Your task to perform on an android device: Search for "apple airpods" on target, select the first entry, add it to the cart, then select checkout. Image 0: 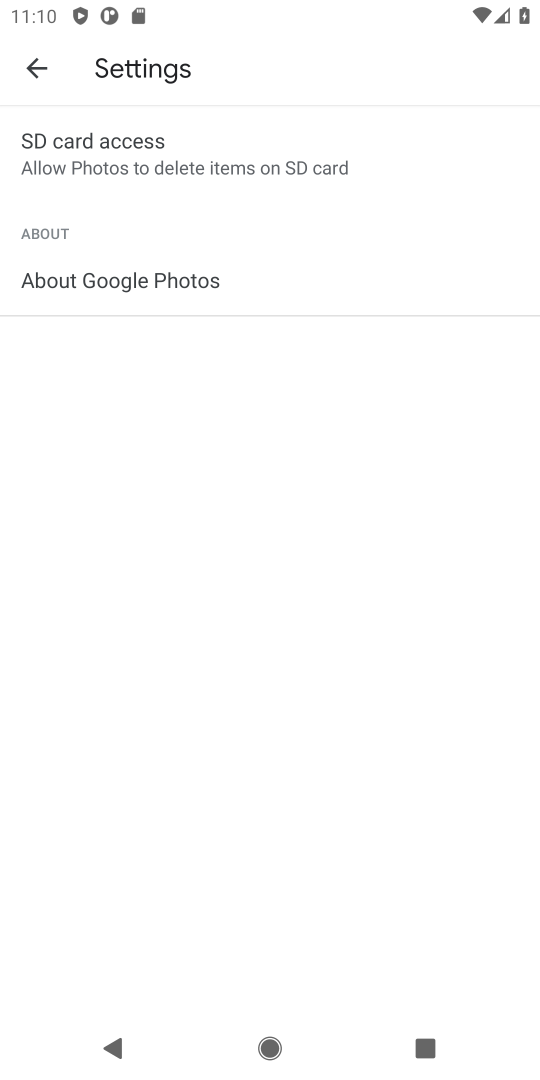
Step 0: press home button
Your task to perform on an android device: Search for "apple airpods" on target, select the first entry, add it to the cart, then select checkout. Image 1: 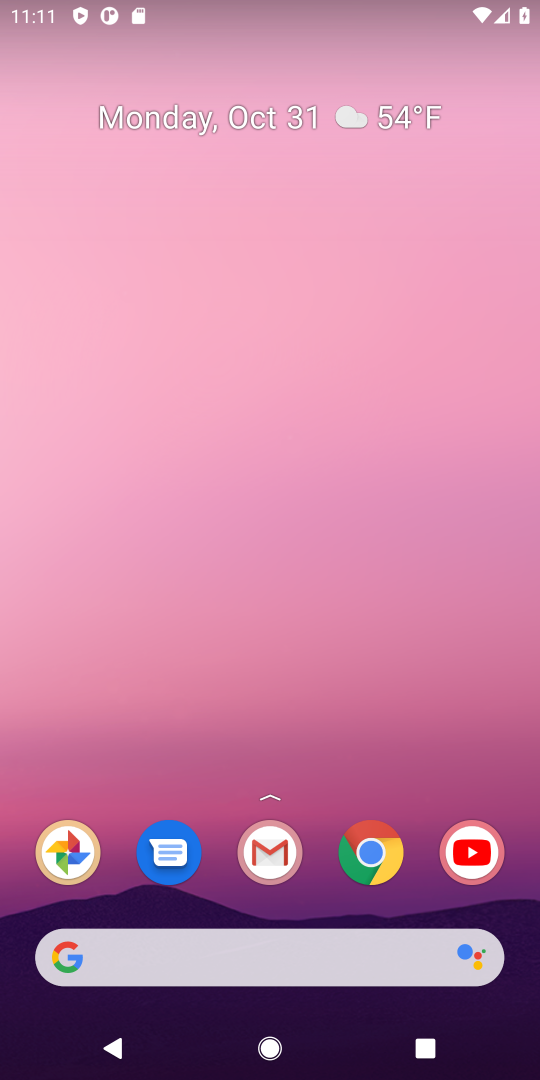
Step 1: click (375, 846)
Your task to perform on an android device: Search for "apple airpods" on target, select the first entry, add it to the cart, then select checkout. Image 2: 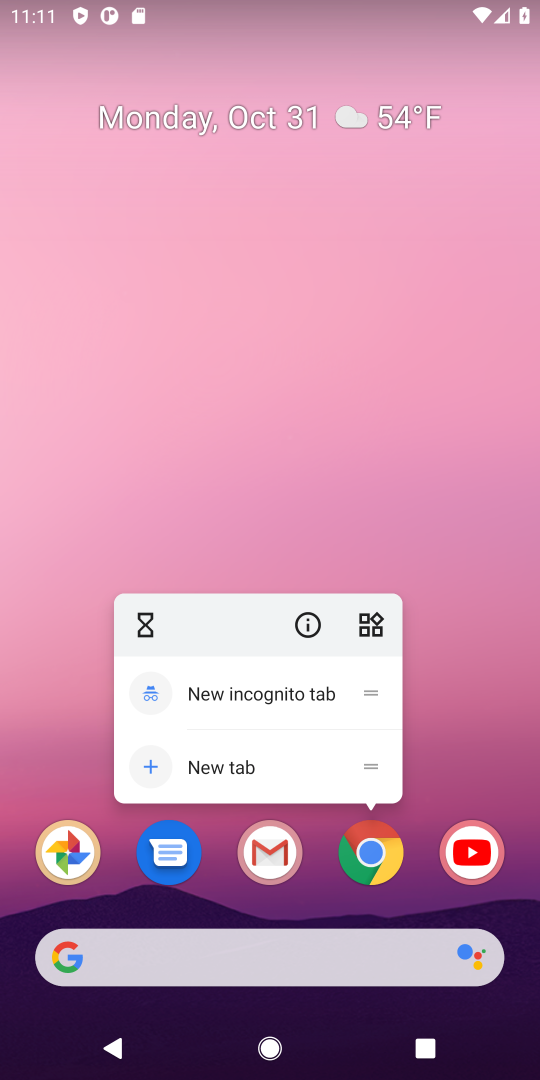
Step 2: click (373, 872)
Your task to perform on an android device: Search for "apple airpods" on target, select the first entry, add it to the cart, then select checkout. Image 3: 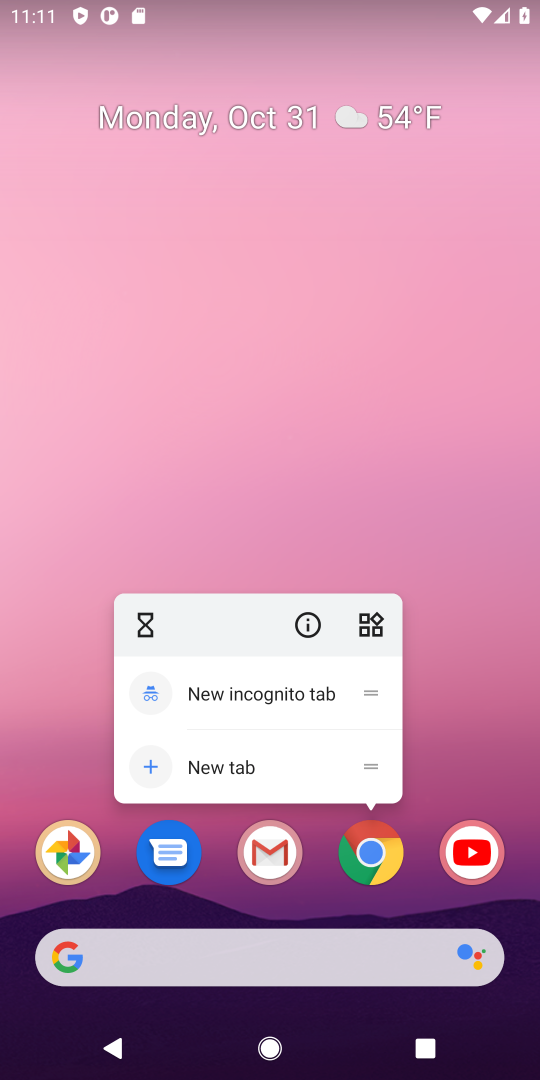
Step 3: click (383, 865)
Your task to perform on an android device: Search for "apple airpods" on target, select the first entry, add it to the cart, then select checkout. Image 4: 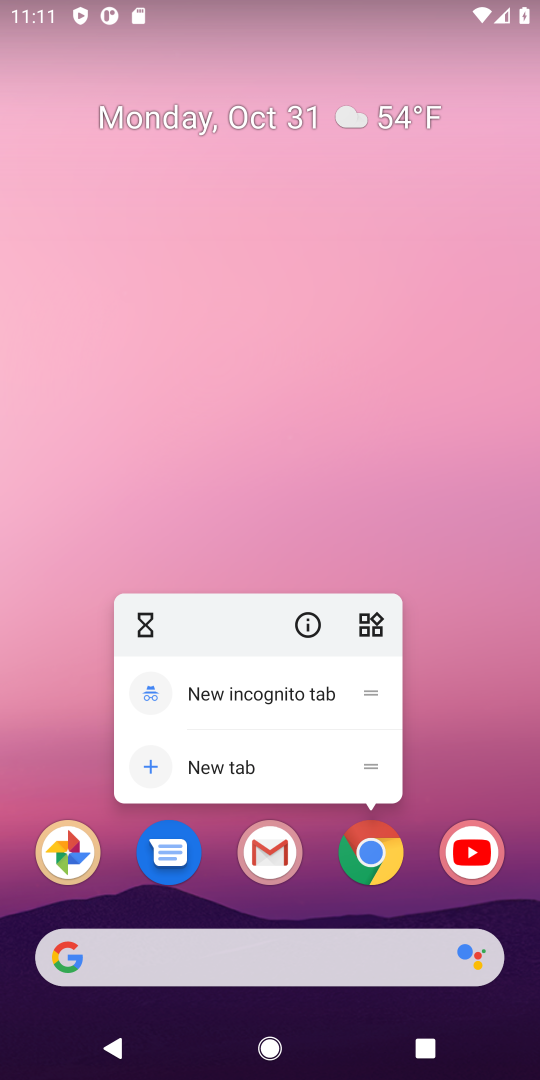
Step 4: click (385, 863)
Your task to perform on an android device: Search for "apple airpods" on target, select the first entry, add it to the cart, then select checkout. Image 5: 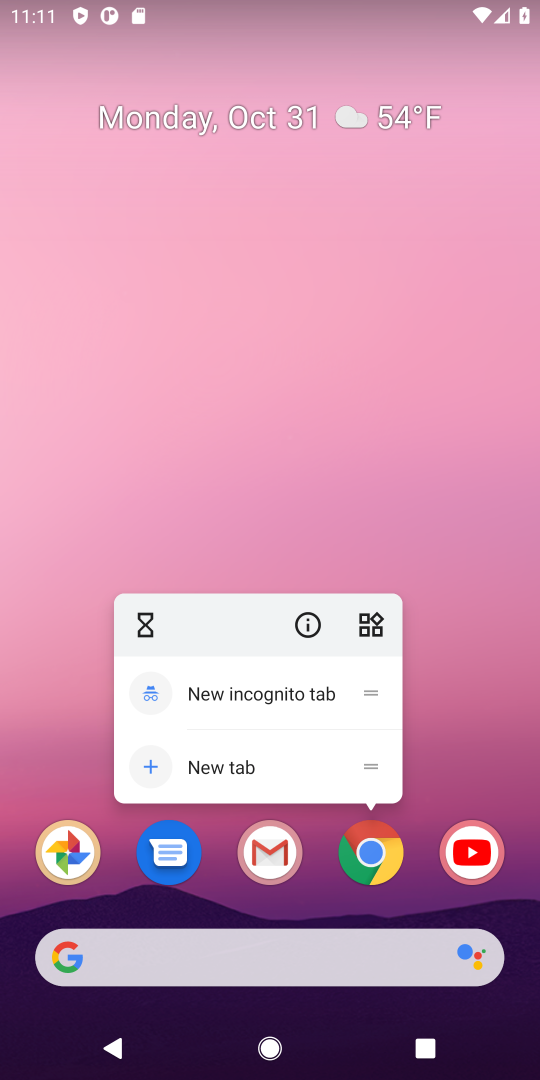
Step 5: click (372, 855)
Your task to perform on an android device: Search for "apple airpods" on target, select the first entry, add it to the cart, then select checkout. Image 6: 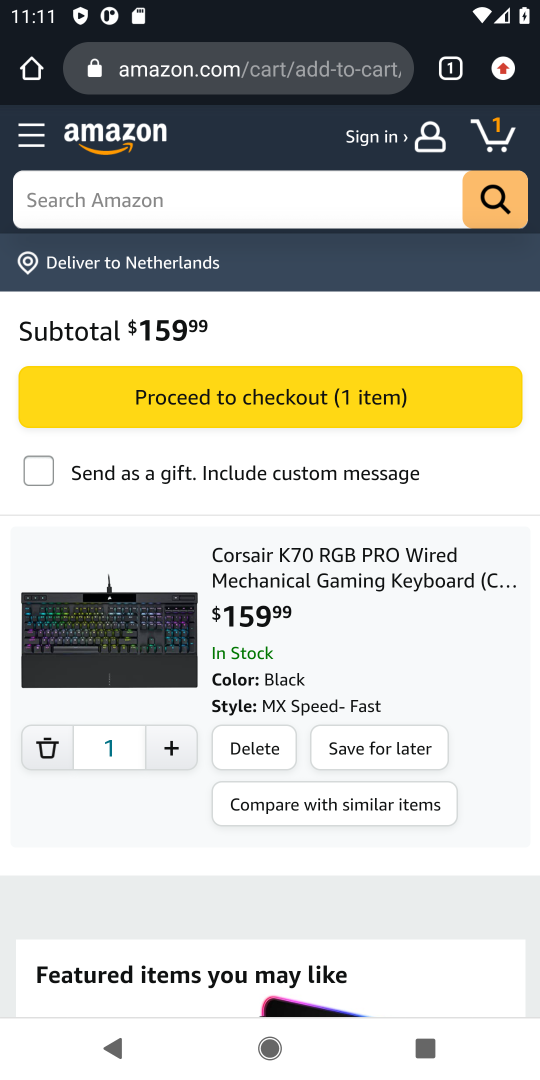
Step 6: click (278, 68)
Your task to perform on an android device: Search for "apple airpods" on target, select the first entry, add it to the cart, then select checkout. Image 7: 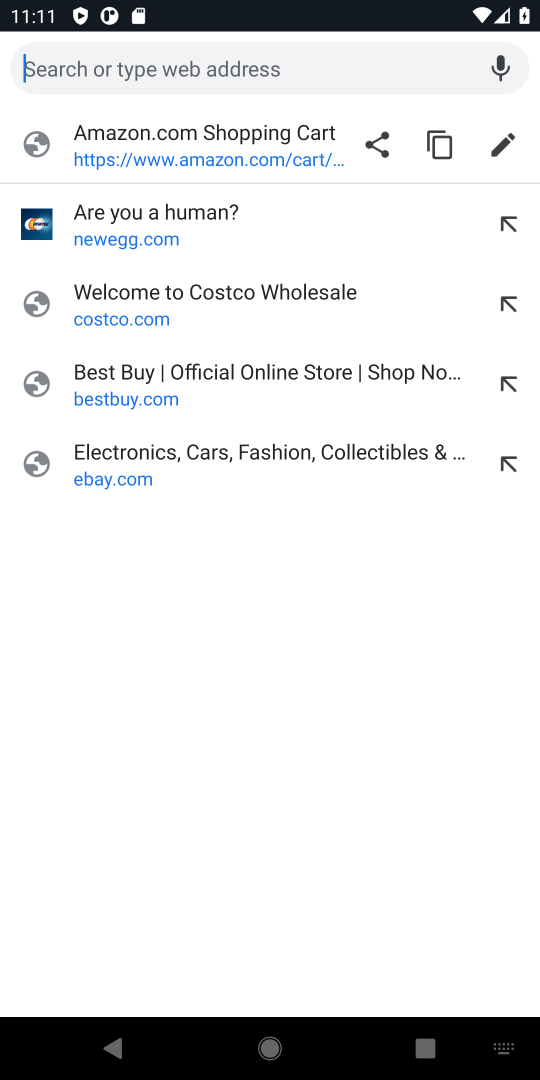
Step 7: type "target"
Your task to perform on an android device: Search for "apple airpods" on target, select the first entry, add it to the cart, then select checkout. Image 8: 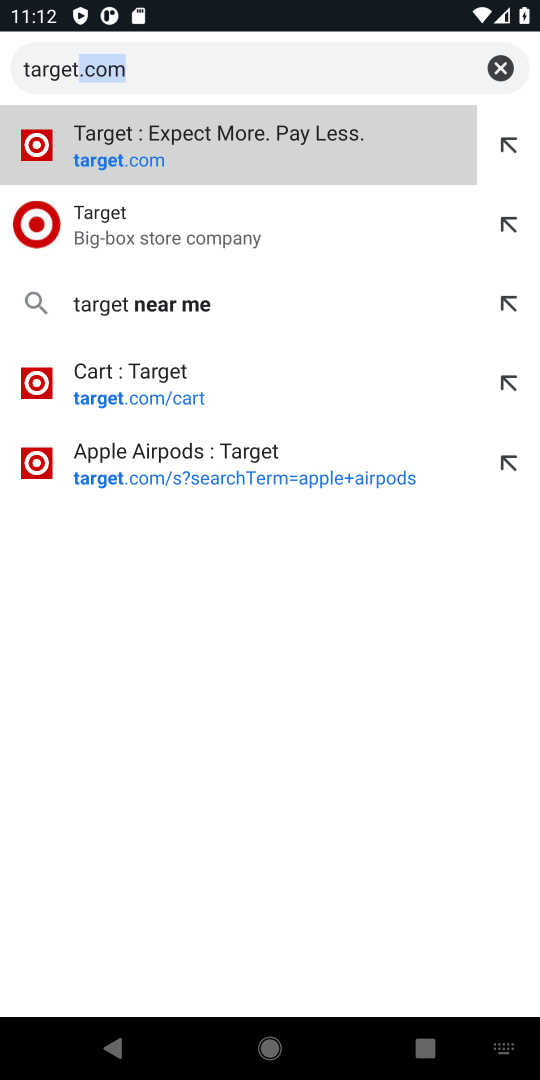
Step 8: press enter
Your task to perform on an android device: Search for "apple airpods" on target, select the first entry, add it to the cart, then select checkout. Image 9: 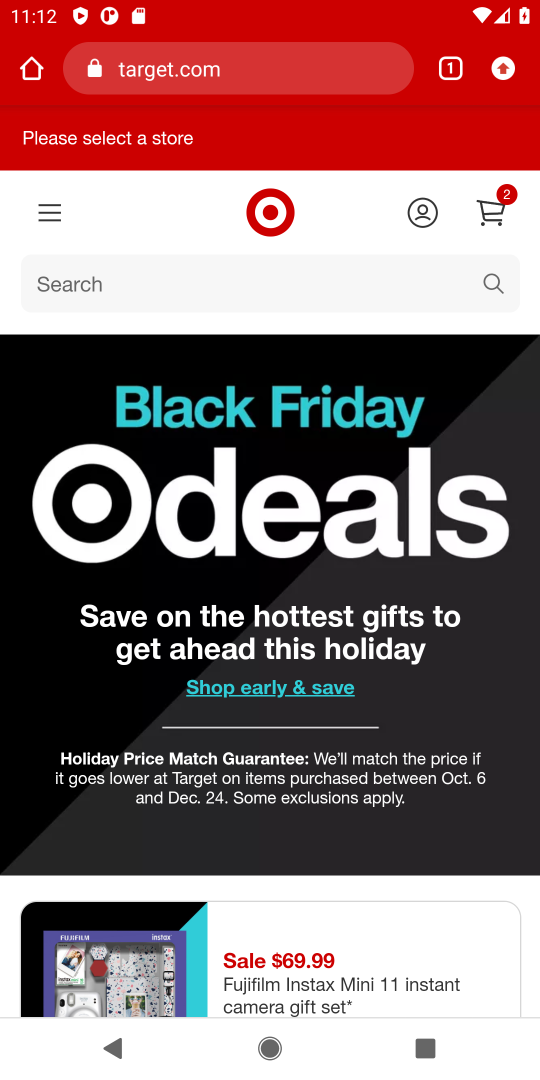
Step 9: click (284, 265)
Your task to perform on an android device: Search for "apple airpods" on target, select the first entry, add it to the cart, then select checkout. Image 10: 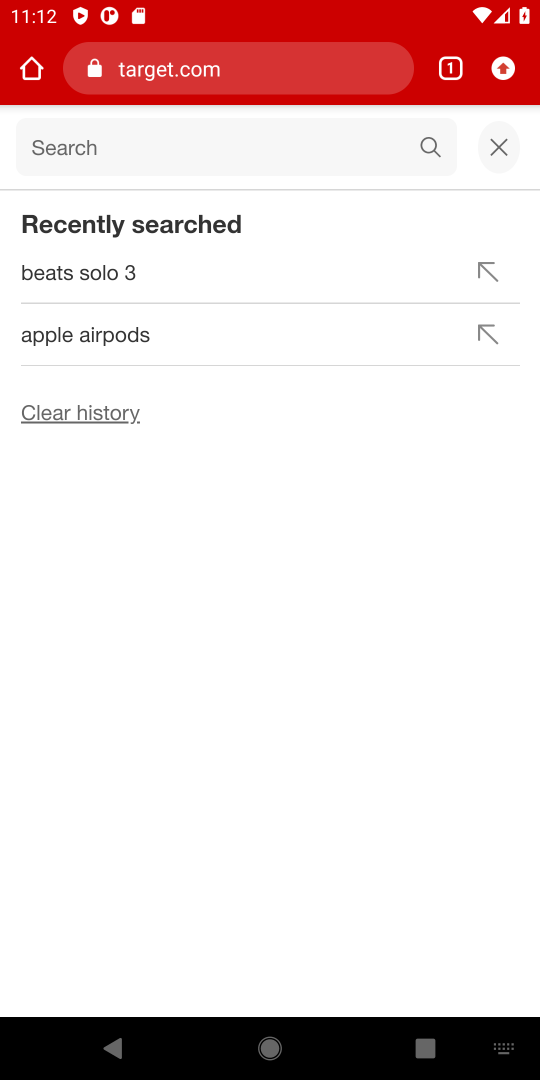
Step 10: type "apple airpods"
Your task to perform on an android device: Search for "apple airpods" on target, select the first entry, add it to the cart, then select checkout. Image 11: 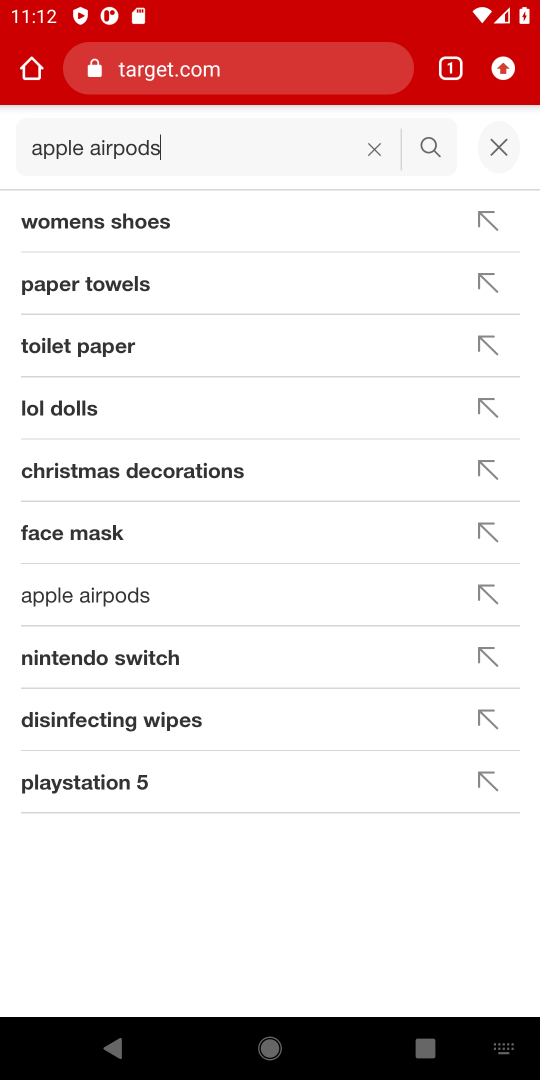
Step 11: type ""
Your task to perform on an android device: Search for "apple airpods" on target, select the first entry, add it to the cart, then select checkout. Image 12: 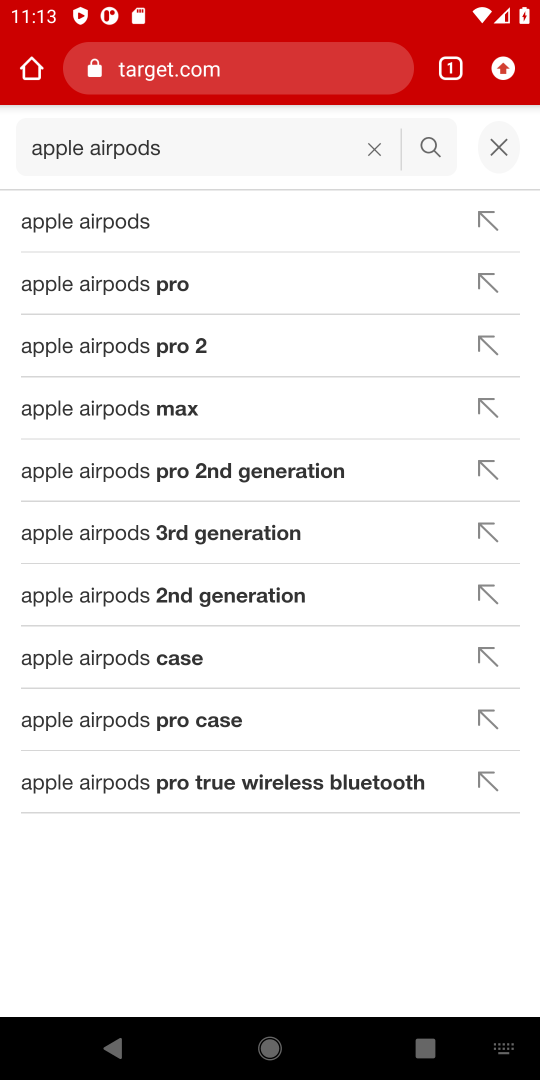
Step 12: click (427, 144)
Your task to perform on an android device: Search for "apple airpods" on target, select the first entry, add it to the cart, then select checkout. Image 13: 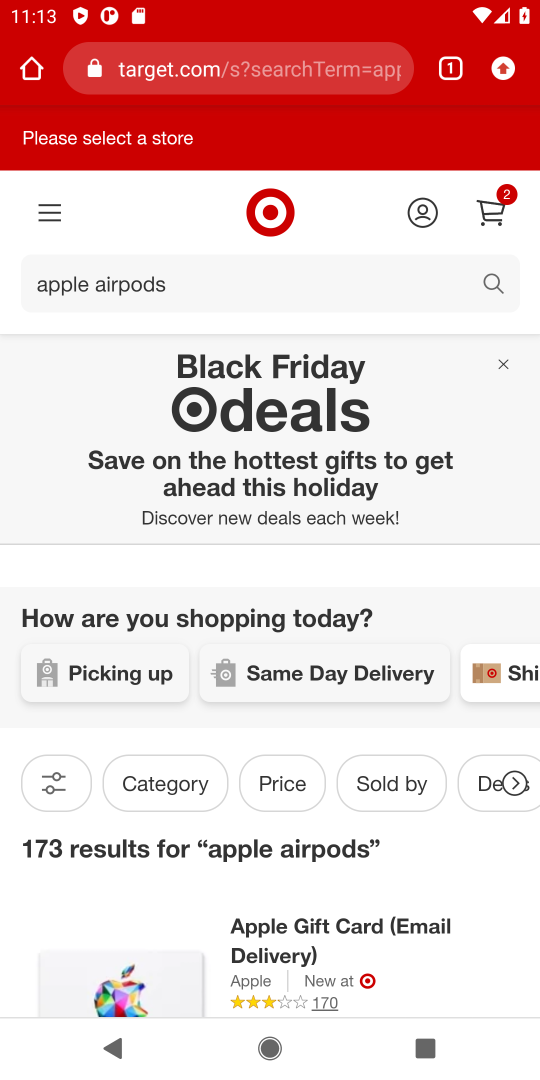
Step 13: drag from (250, 892) to (207, 335)
Your task to perform on an android device: Search for "apple airpods" on target, select the first entry, add it to the cart, then select checkout. Image 14: 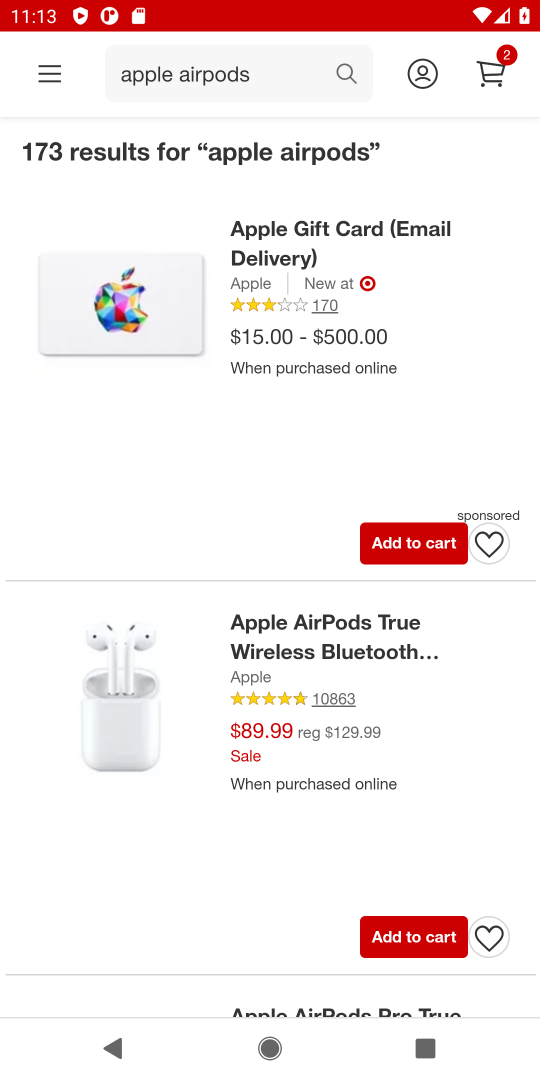
Step 14: click (292, 628)
Your task to perform on an android device: Search for "apple airpods" on target, select the first entry, add it to the cart, then select checkout. Image 15: 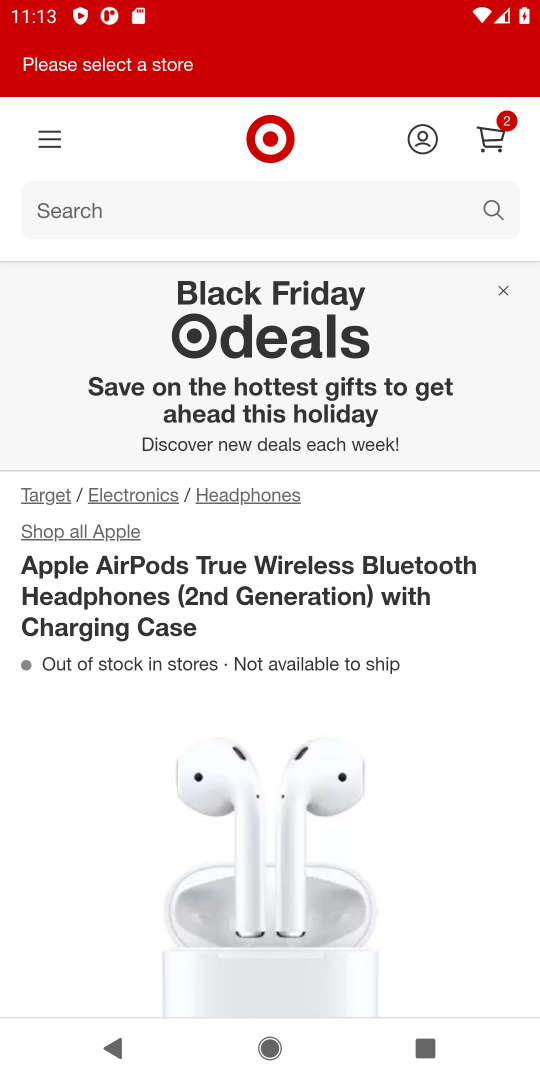
Step 15: drag from (330, 725) to (278, 244)
Your task to perform on an android device: Search for "apple airpods" on target, select the first entry, add it to the cart, then select checkout. Image 16: 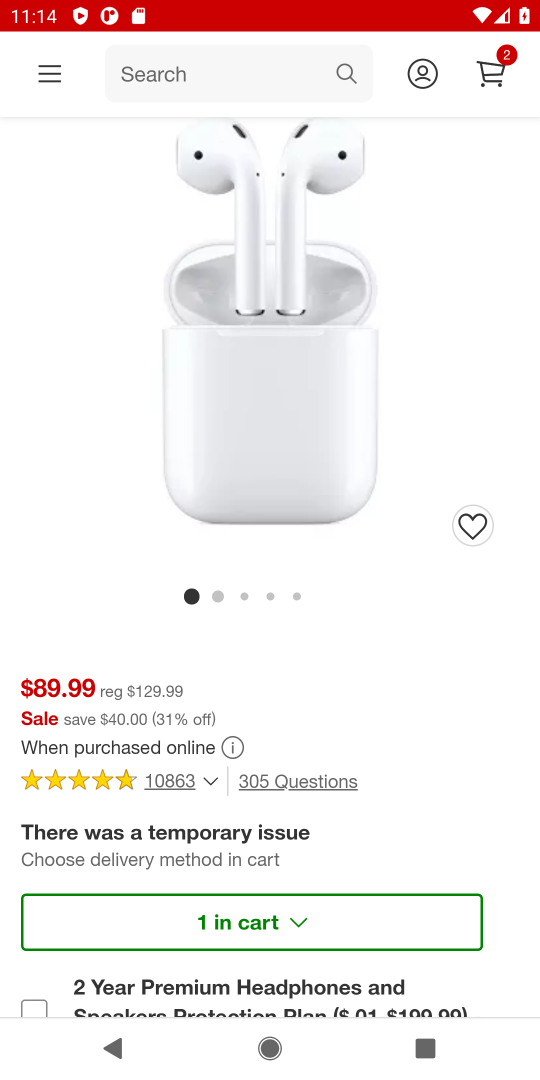
Step 16: click (276, 919)
Your task to perform on an android device: Search for "apple airpods" on target, select the first entry, add it to the cart, then select checkout. Image 17: 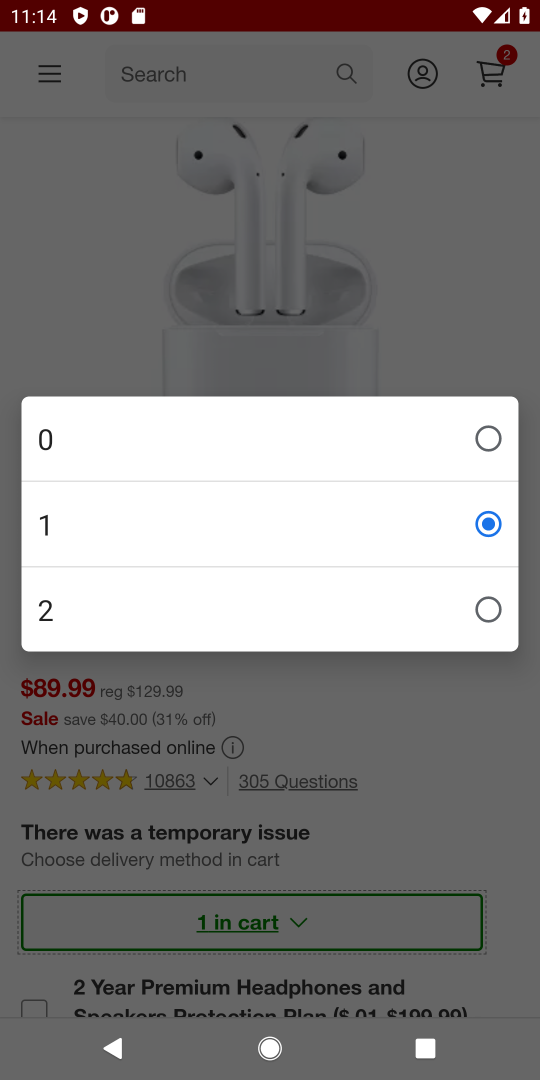
Step 17: click (336, 532)
Your task to perform on an android device: Search for "apple airpods" on target, select the first entry, add it to the cart, then select checkout. Image 18: 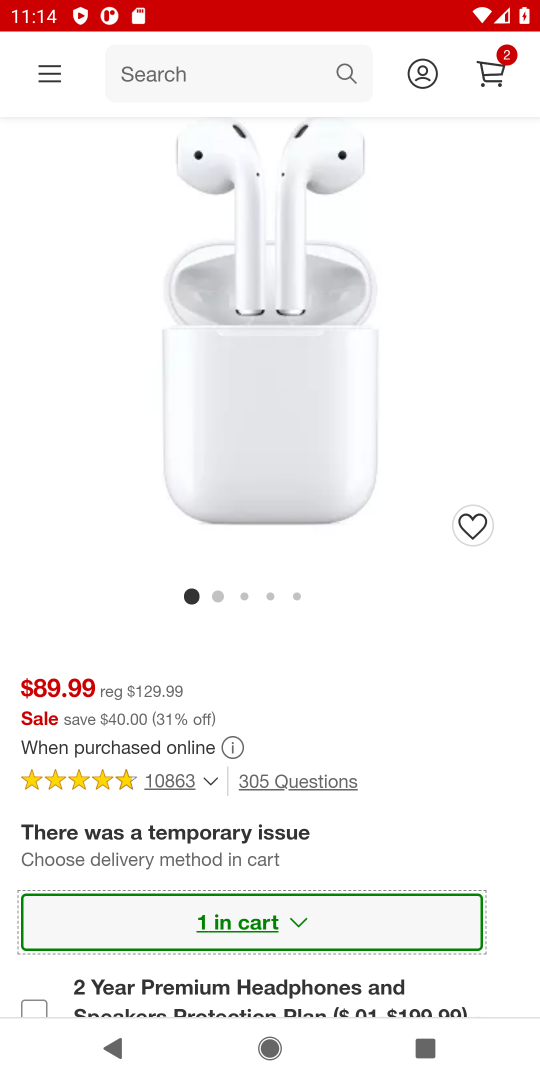
Step 18: click (509, 72)
Your task to perform on an android device: Search for "apple airpods" on target, select the first entry, add it to the cart, then select checkout. Image 19: 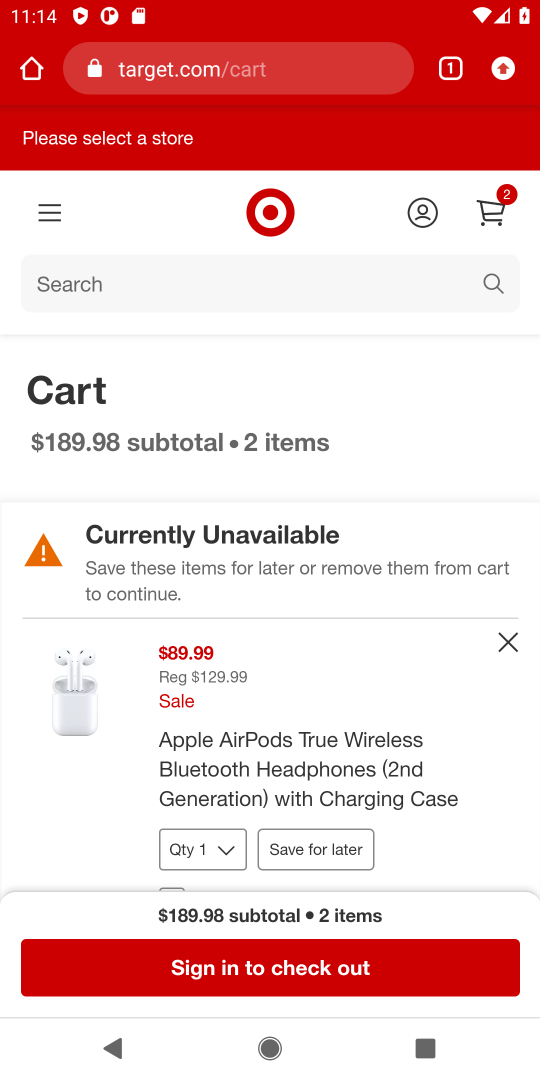
Step 19: task complete